Your task to perform on an android device: Open Google Chrome and click the shortcut for Amazon.com Image 0: 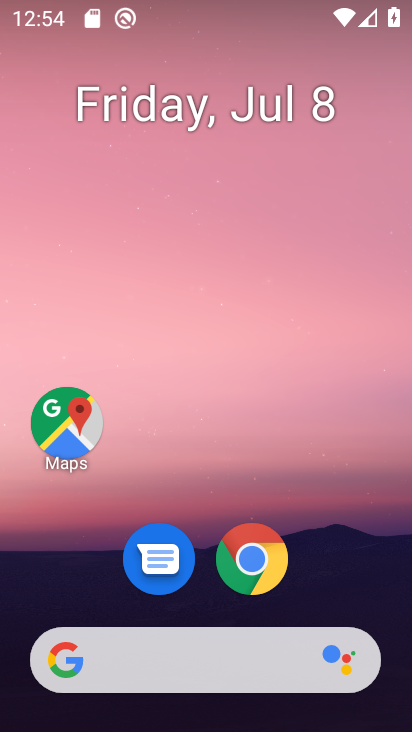
Step 0: drag from (210, 618) to (126, 2)
Your task to perform on an android device: Open Google Chrome and click the shortcut for Amazon.com Image 1: 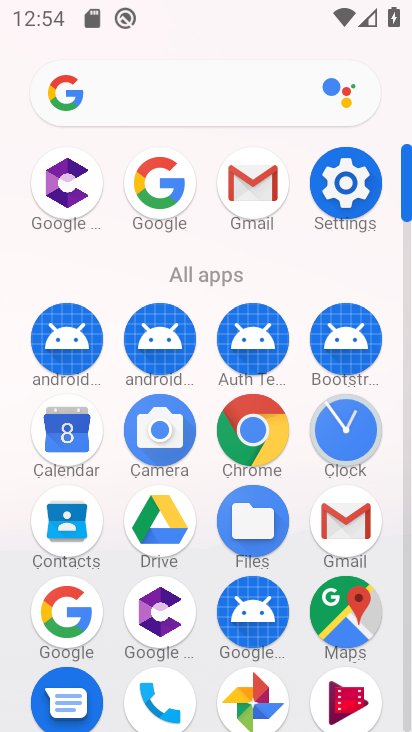
Step 1: click (238, 429)
Your task to perform on an android device: Open Google Chrome and click the shortcut for Amazon.com Image 2: 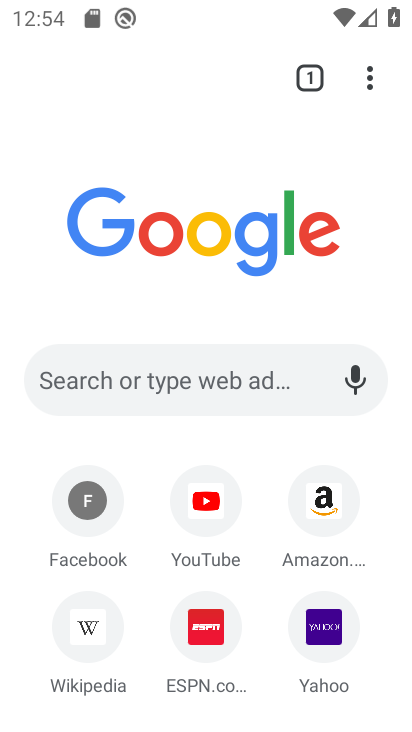
Step 2: click (326, 508)
Your task to perform on an android device: Open Google Chrome and click the shortcut for Amazon.com Image 3: 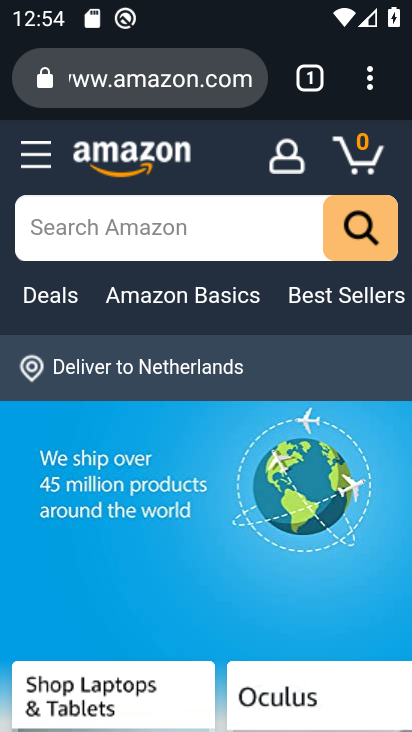
Step 3: task complete